Your task to perform on an android device: Open maps Image 0: 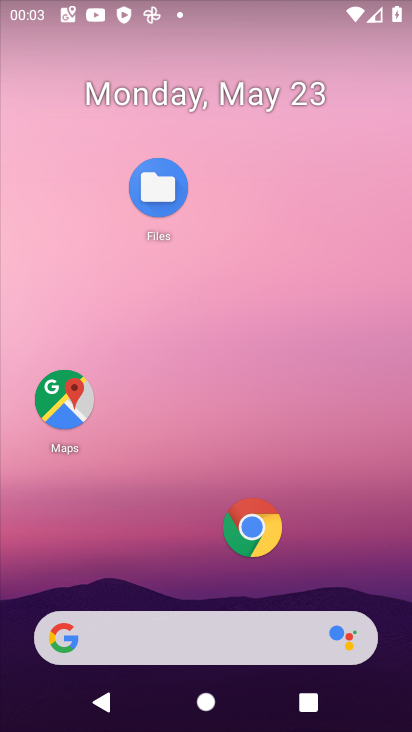
Step 0: click (55, 392)
Your task to perform on an android device: Open maps Image 1: 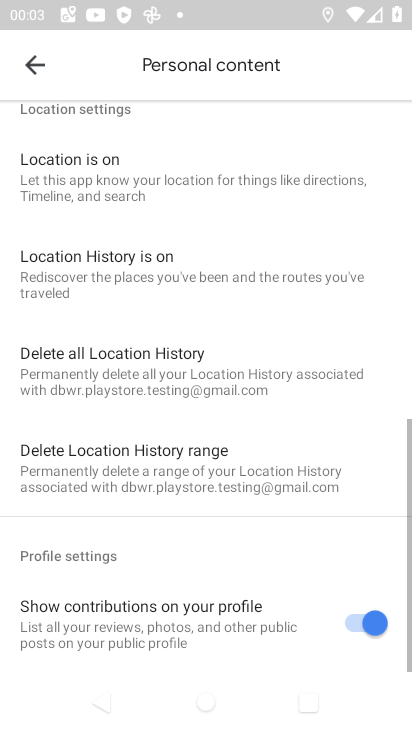
Step 1: click (30, 66)
Your task to perform on an android device: Open maps Image 2: 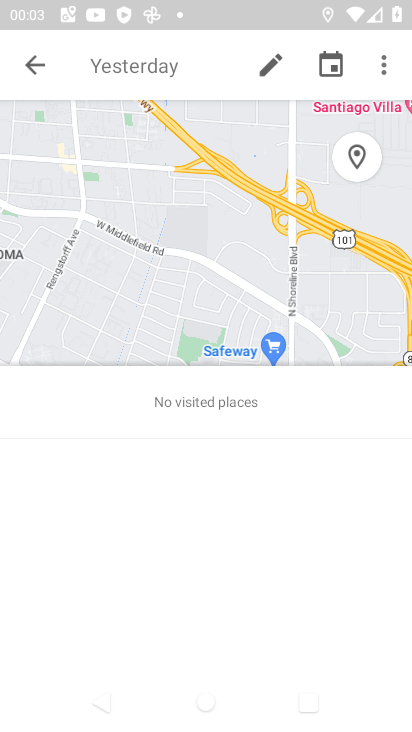
Step 2: click (30, 66)
Your task to perform on an android device: Open maps Image 3: 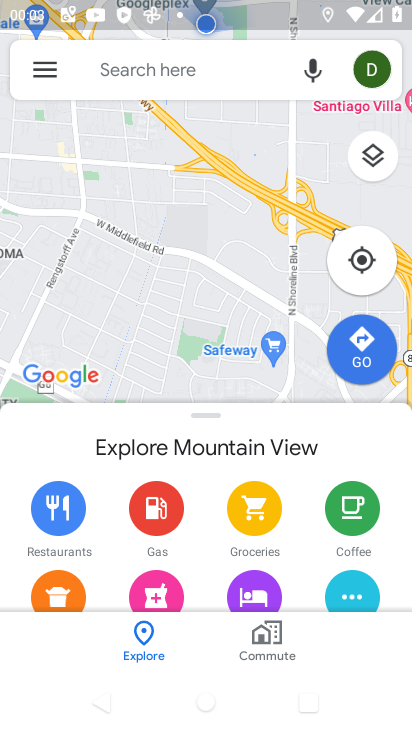
Step 3: task complete